Your task to perform on an android device: Open Google Chrome Image 0: 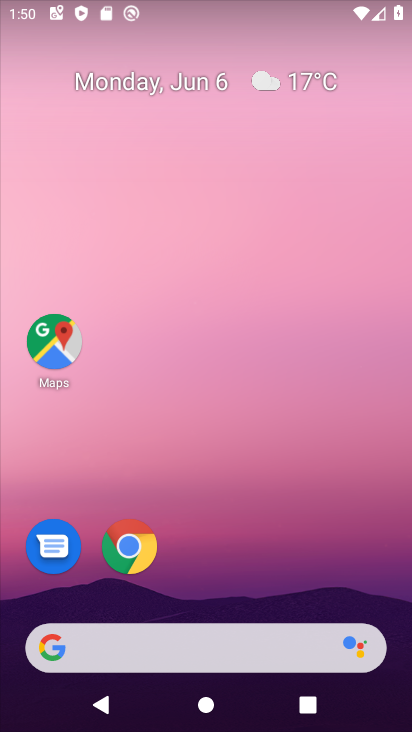
Step 0: click (132, 546)
Your task to perform on an android device: Open Google Chrome Image 1: 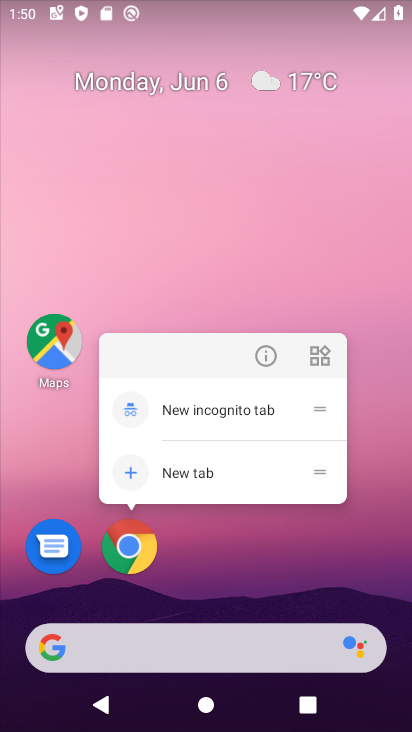
Step 1: click (132, 545)
Your task to perform on an android device: Open Google Chrome Image 2: 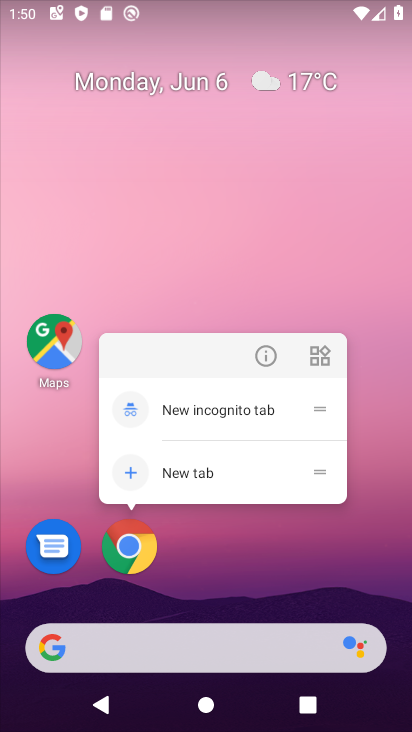
Step 2: click (296, 591)
Your task to perform on an android device: Open Google Chrome Image 3: 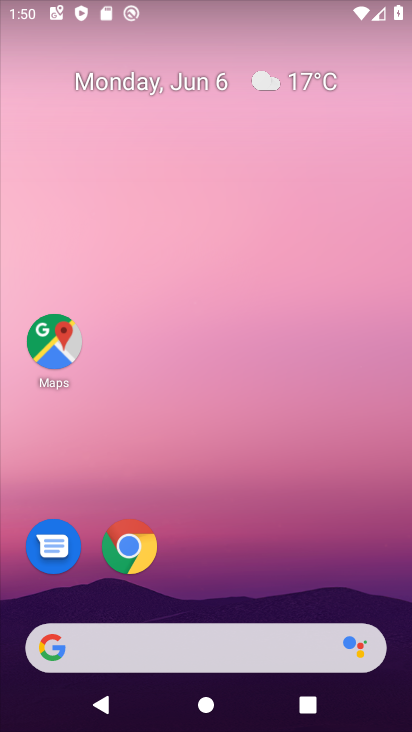
Step 3: drag from (296, 562) to (392, 108)
Your task to perform on an android device: Open Google Chrome Image 4: 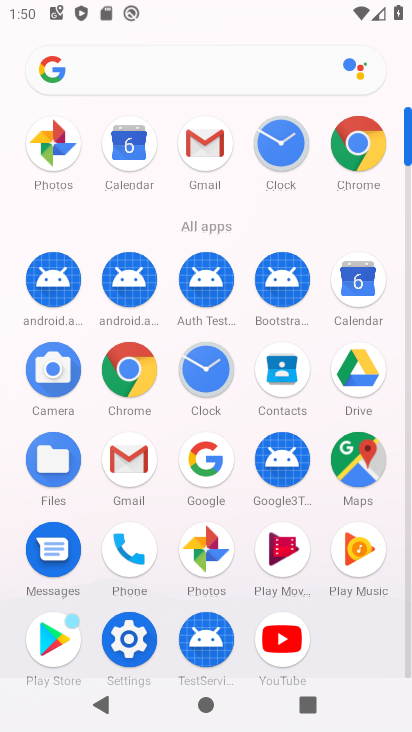
Step 4: click (125, 371)
Your task to perform on an android device: Open Google Chrome Image 5: 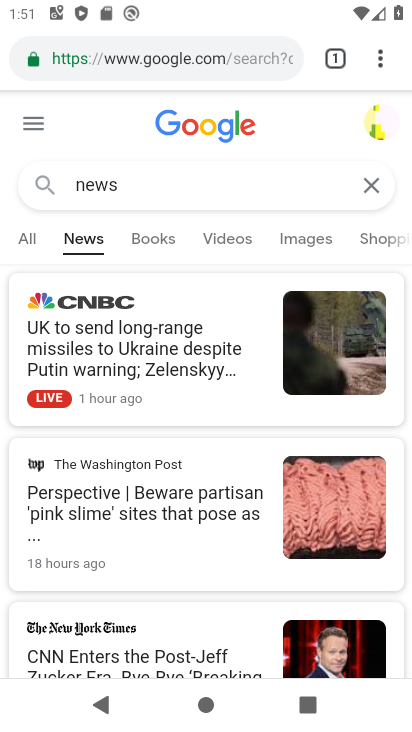
Step 5: task complete